Your task to perform on an android device: What's the weather going to be this weekend? Image 0: 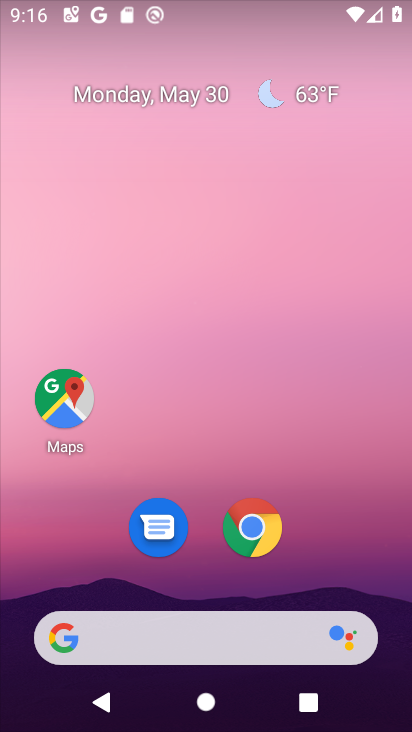
Step 0: drag from (340, 585) to (314, 234)
Your task to perform on an android device: What's the weather going to be this weekend? Image 1: 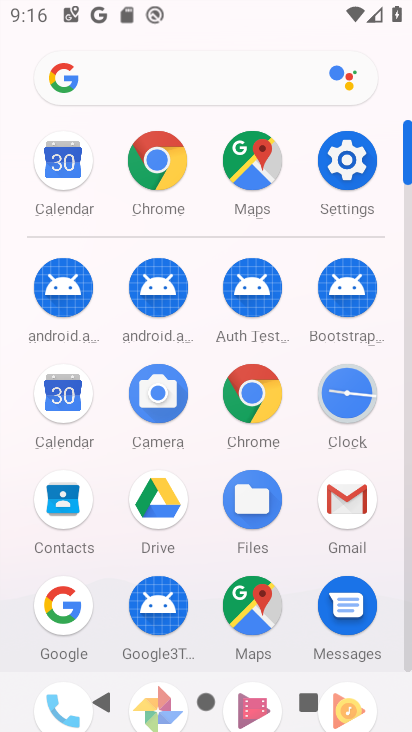
Step 1: click (231, 389)
Your task to perform on an android device: What's the weather going to be this weekend? Image 2: 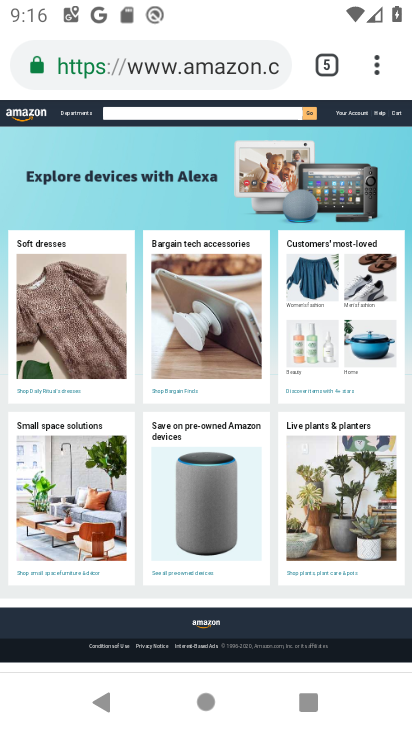
Step 2: click (371, 65)
Your task to perform on an android device: What's the weather going to be this weekend? Image 3: 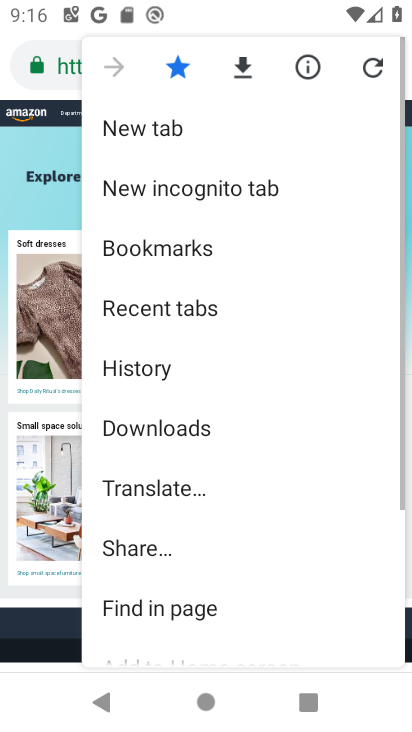
Step 3: click (198, 132)
Your task to perform on an android device: What's the weather going to be this weekend? Image 4: 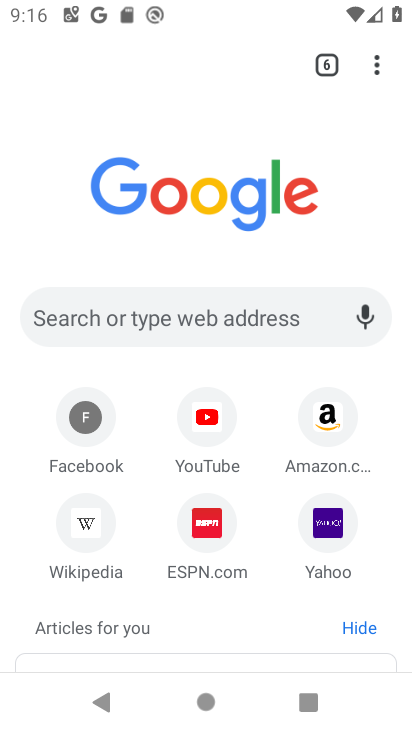
Step 4: click (162, 305)
Your task to perform on an android device: What's the weather going to be this weekend? Image 5: 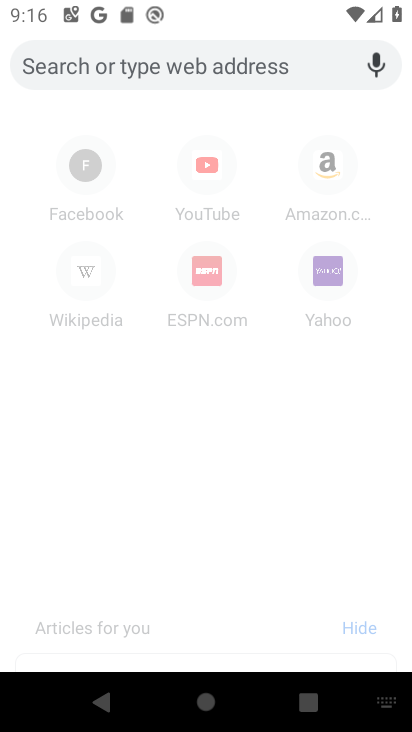
Step 5: type "What's the weather going to be this weekend?"
Your task to perform on an android device: What's the weather going to be this weekend? Image 6: 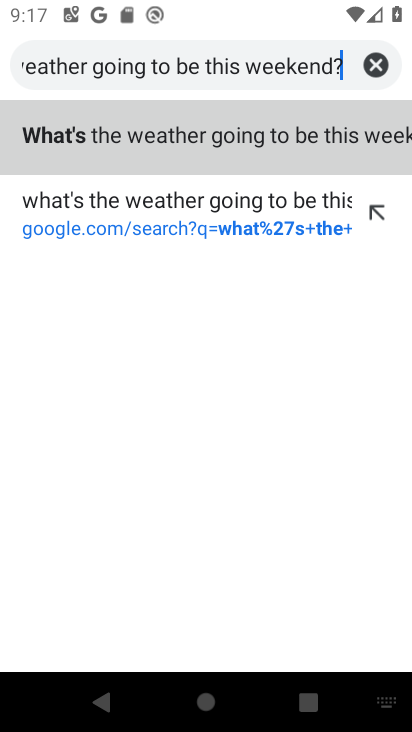
Step 6: click (354, 126)
Your task to perform on an android device: What's the weather going to be this weekend? Image 7: 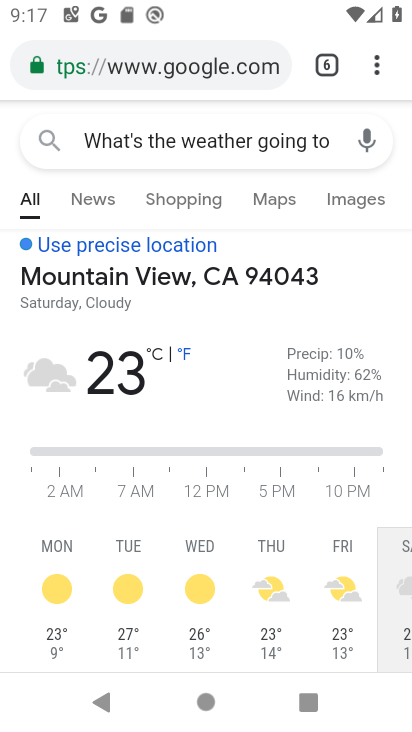
Step 7: task complete